Your task to perform on an android device: set default search engine in the chrome app Image 0: 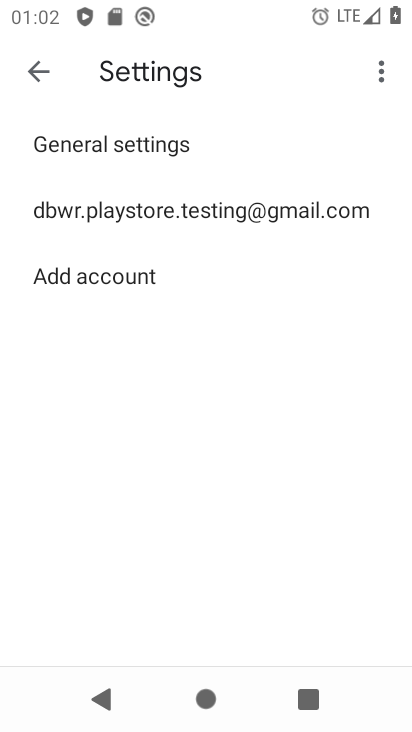
Step 0: press home button
Your task to perform on an android device: set default search engine in the chrome app Image 1: 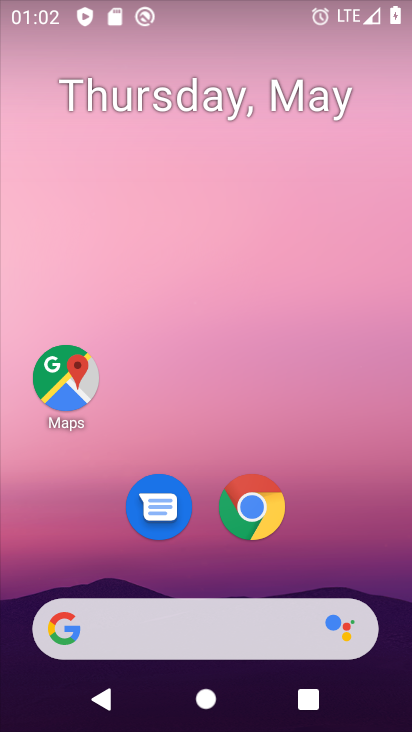
Step 1: click (261, 501)
Your task to perform on an android device: set default search engine in the chrome app Image 2: 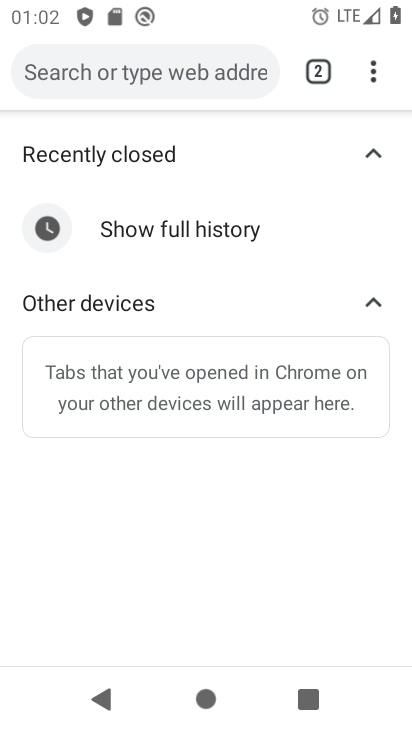
Step 2: drag from (374, 63) to (133, 500)
Your task to perform on an android device: set default search engine in the chrome app Image 3: 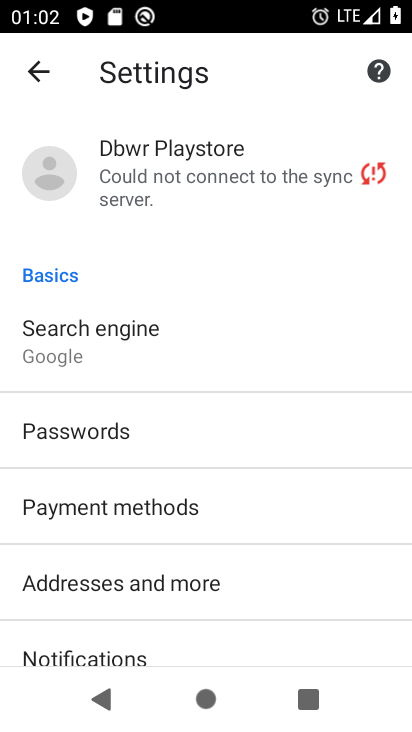
Step 3: click (132, 320)
Your task to perform on an android device: set default search engine in the chrome app Image 4: 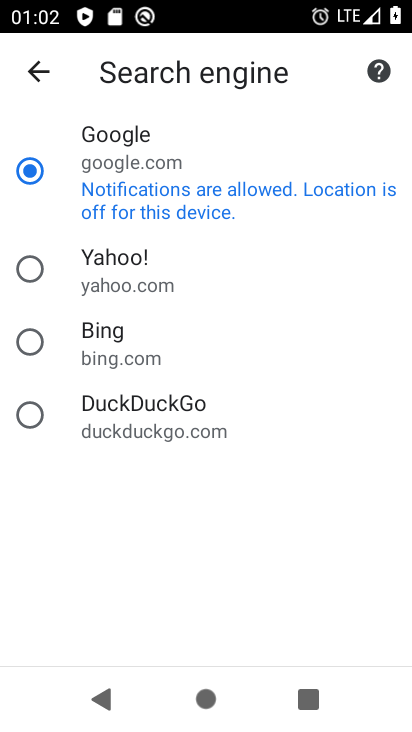
Step 4: click (21, 267)
Your task to perform on an android device: set default search engine in the chrome app Image 5: 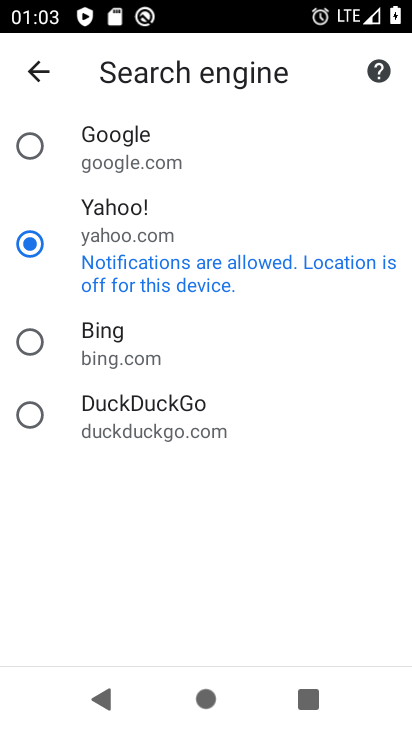
Step 5: task complete